Your task to perform on an android device: Open Yahoo.com Image 0: 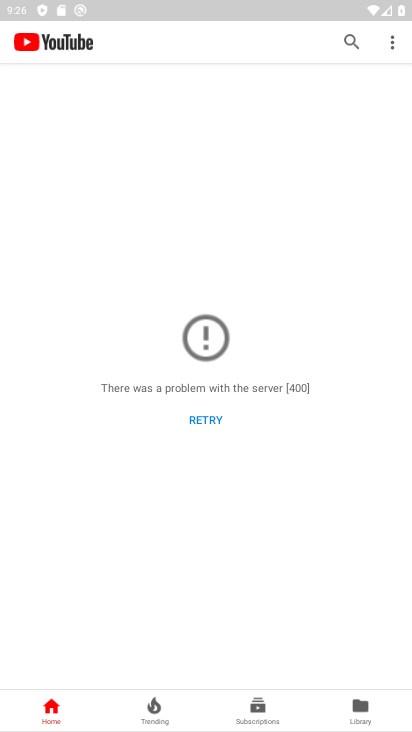
Step 0: press home button
Your task to perform on an android device: Open Yahoo.com Image 1: 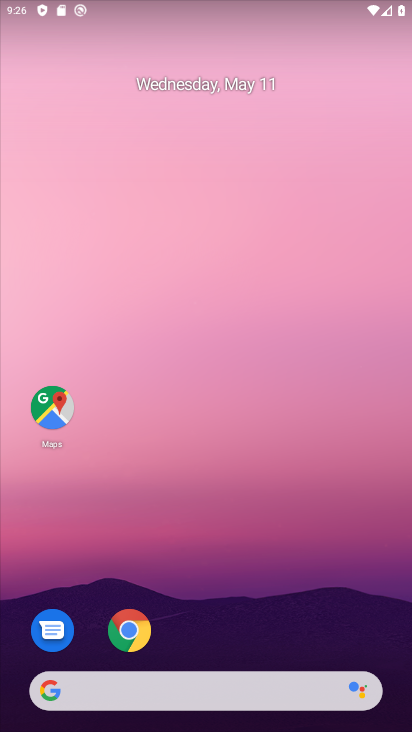
Step 1: click (134, 628)
Your task to perform on an android device: Open Yahoo.com Image 2: 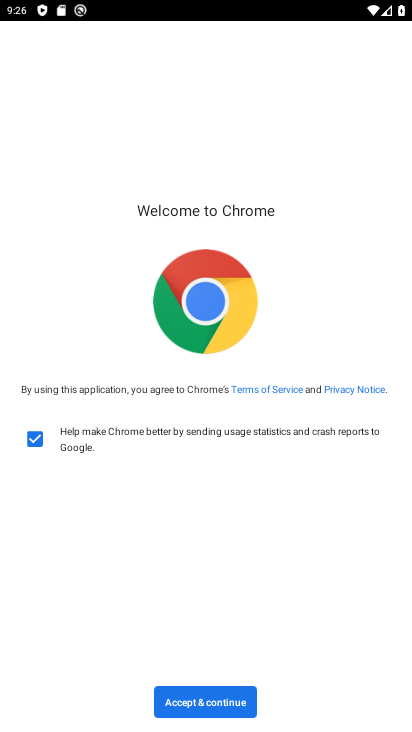
Step 2: click (200, 705)
Your task to perform on an android device: Open Yahoo.com Image 3: 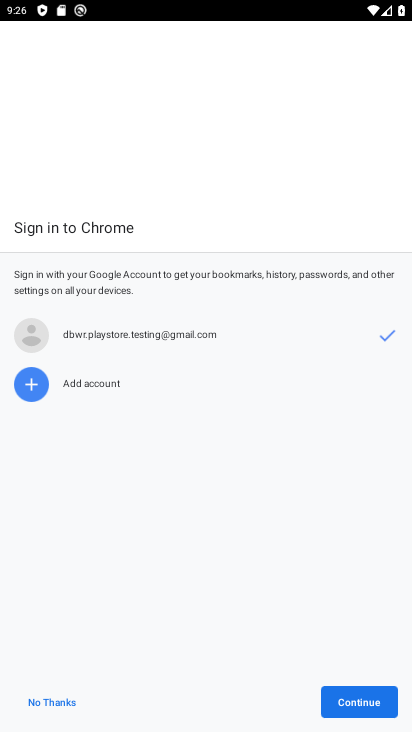
Step 3: click (362, 698)
Your task to perform on an android device: Open Yahoo.com Image 4: 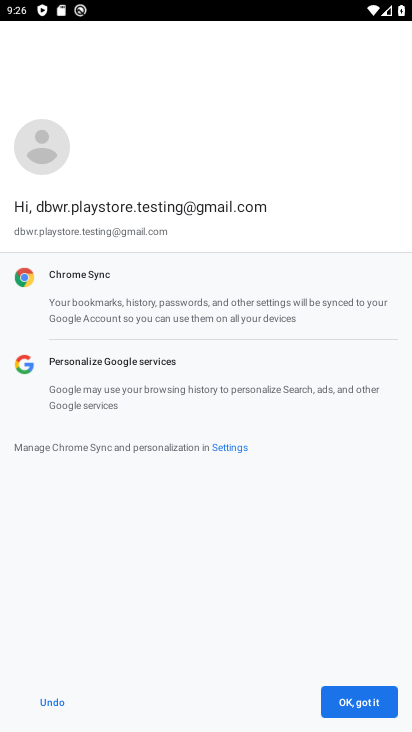
Step 4: click (351, 710)
Your task to perform on an android device: Open Yahoo.com Image 5: 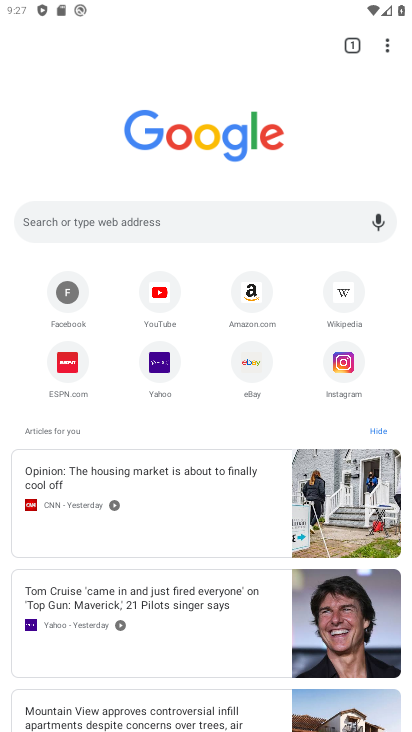
Step 5: click (158, 366)
Your task to perform on an android device: Open Yahoo.com Image 6: 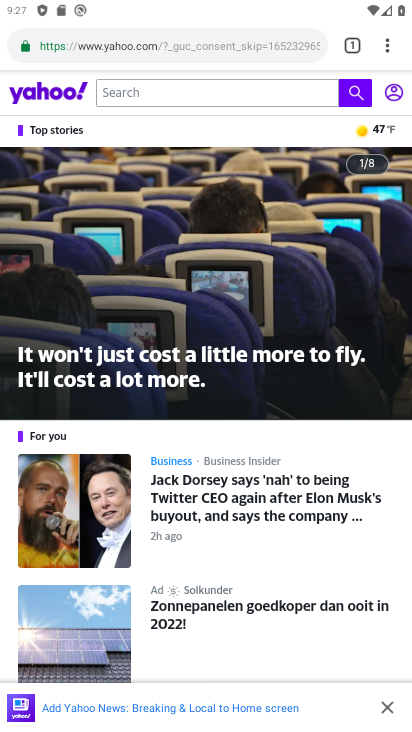
Step 6: task complete